Your task to perform on an android device: open app "Gmail" (install if not already installed) and enter user name: "undecidable@inbox.com" and password: "discouraging" Image 0: 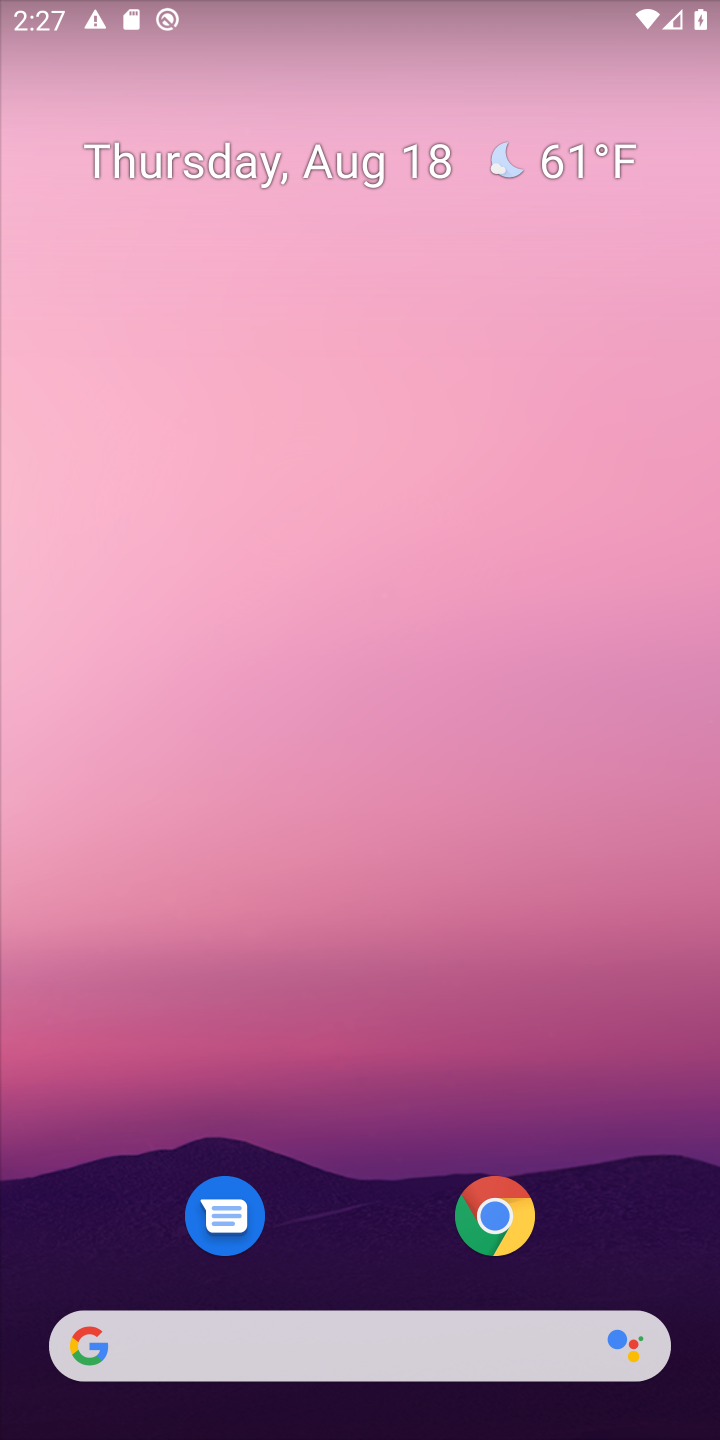
Step 0: drag from (615, 1237) to (557, 88)
Your task to perform on an android device: open app "Gmail" (install if not already installed) and enter user name: "undecidable@inbox.com" and password: "discouraging" Image 1: 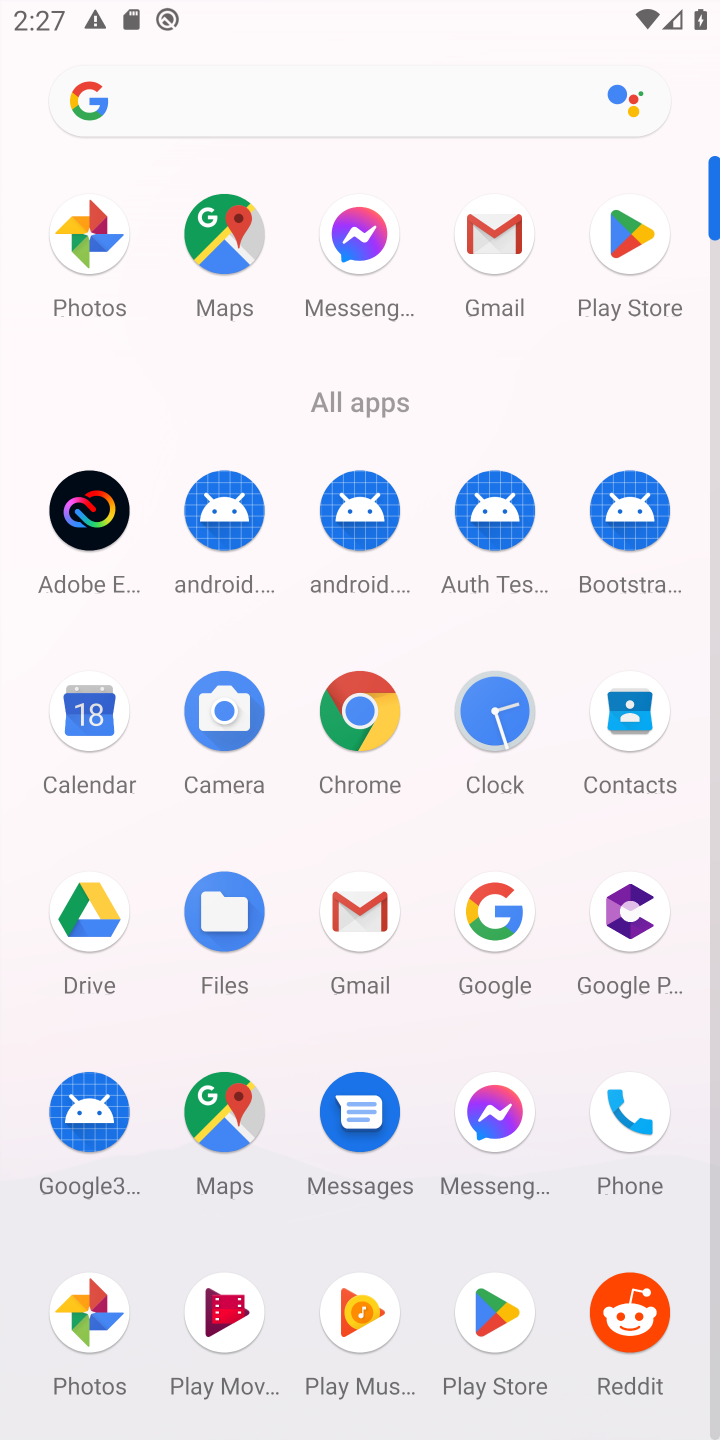
Step 1: click (365, 912)
Your task to perform on an android device: open app "Gmail" (install if not already installed) and enter user name: "undecidable@inbox.com" and password: "discouraging" Image 2: 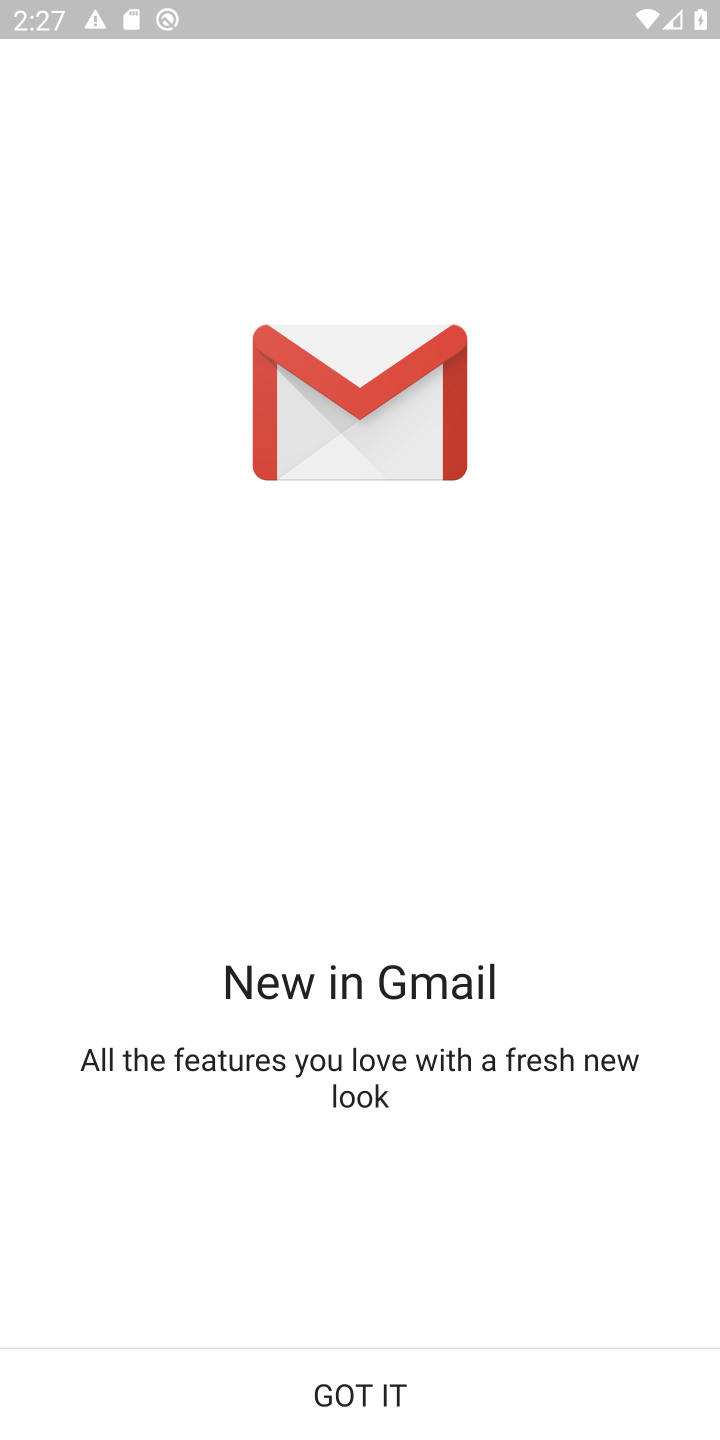
Step 2: click (368, 1400)
Your task to perform on an android device: open app "Gmail" (install if not already installed) and enter user name: "undecidable@inbox.com" and password: "discouraging" Image 3: 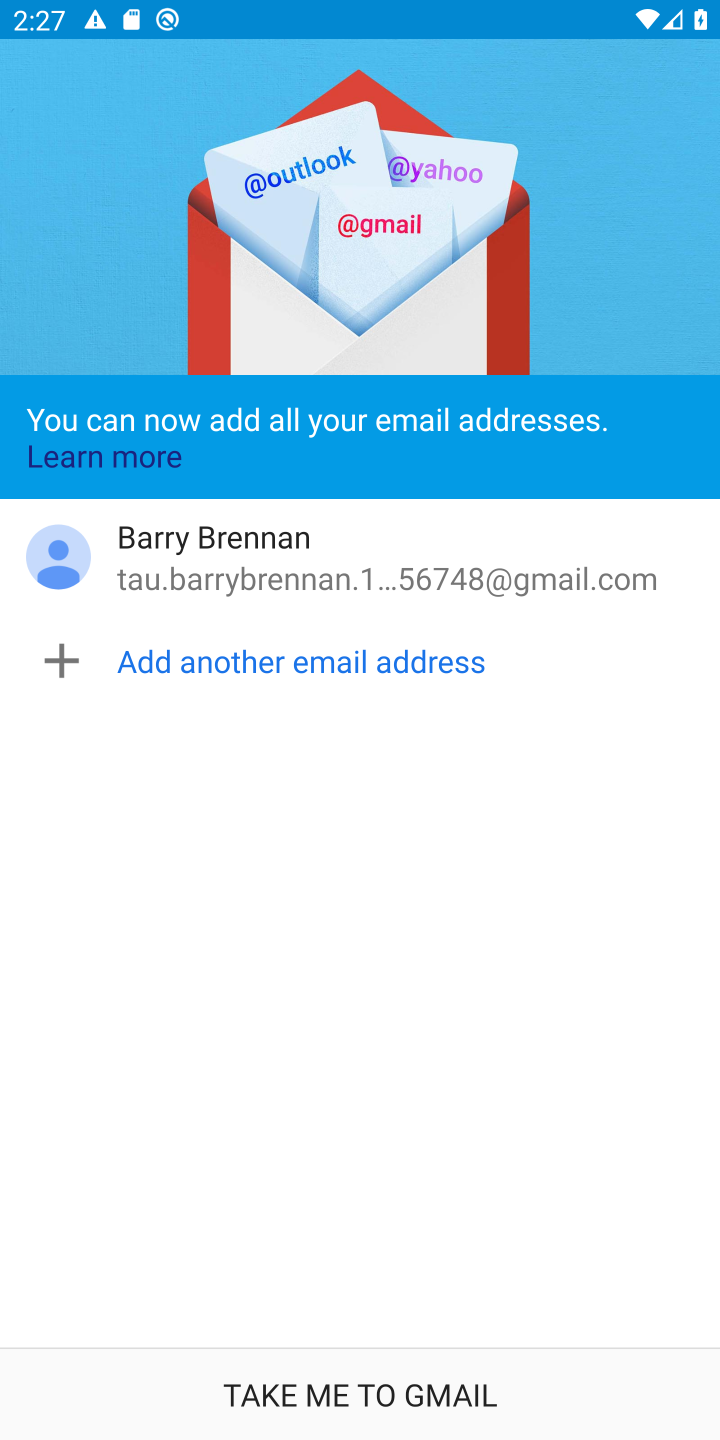
Step 3: click (369, 1380)
Your task to perform on an android device: open app "Gmail" (install if not already installed) and enter user name: "undecidable@inbox.com" and password: "discouraging" Image 4: 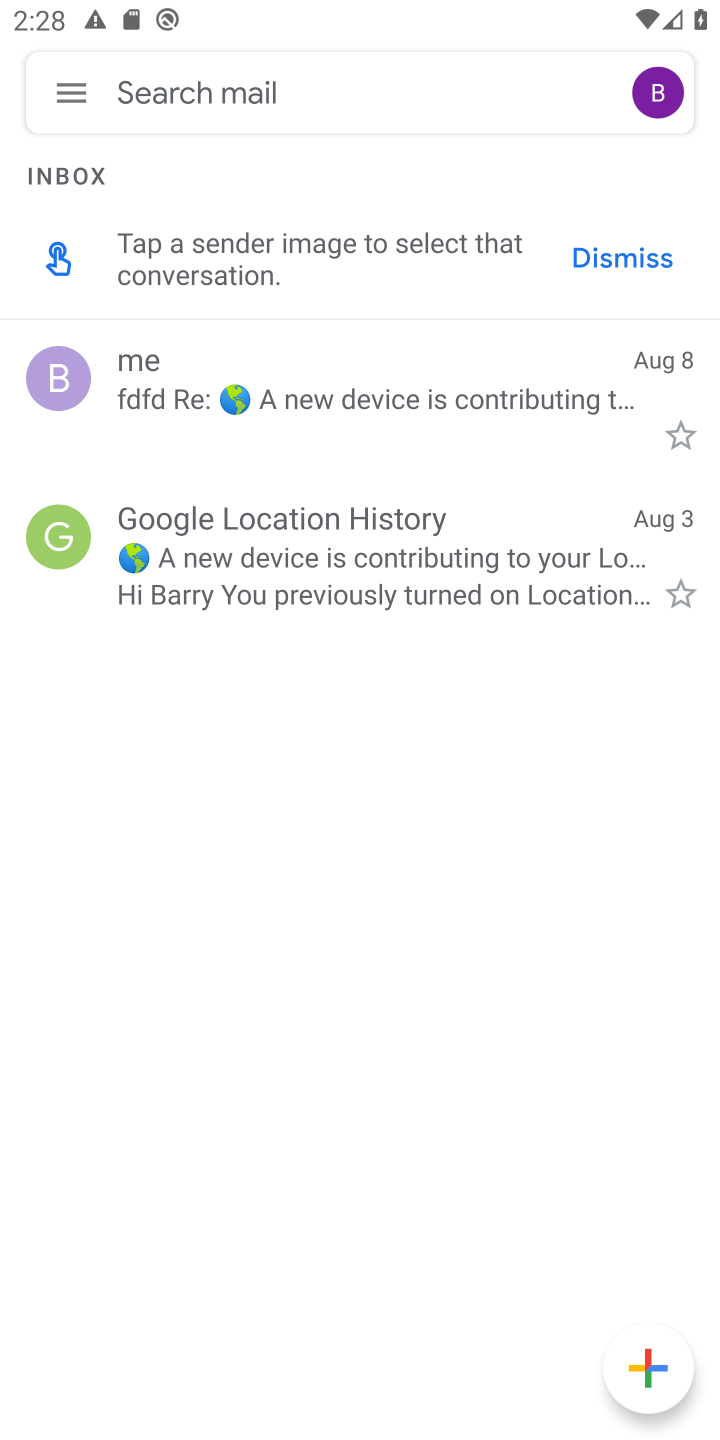
Step 4: click (662, 93)
Your task to perform on an android device: open app "Gmail" (install if not already installed) and enter user name: "undecidable@inbox.com" and password: "discouraging" Image 5: 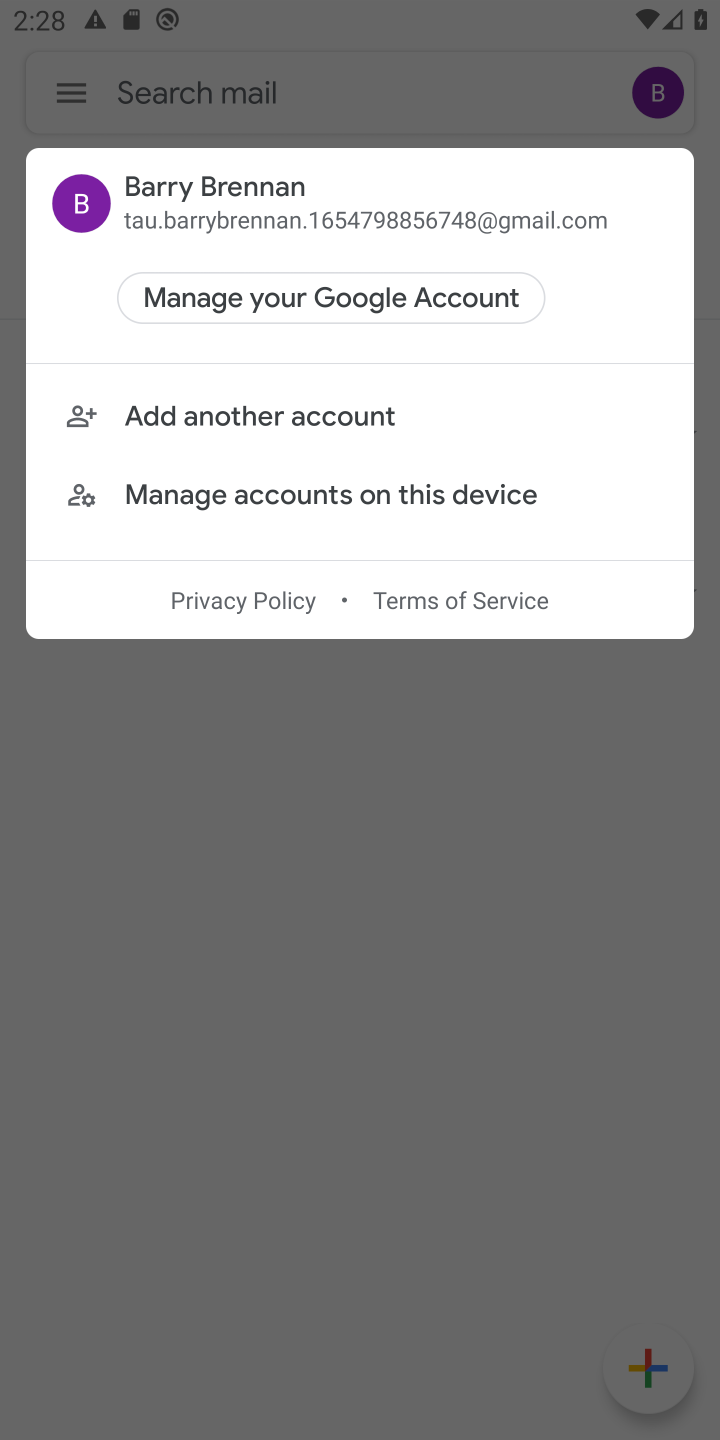
Step 5: click (182, 423)
Your task to perform on an android device: open app "Gmail" (install if not already installed) and enter user name: "undecidable@inbox.com" and password: "discouraging" Image 6: 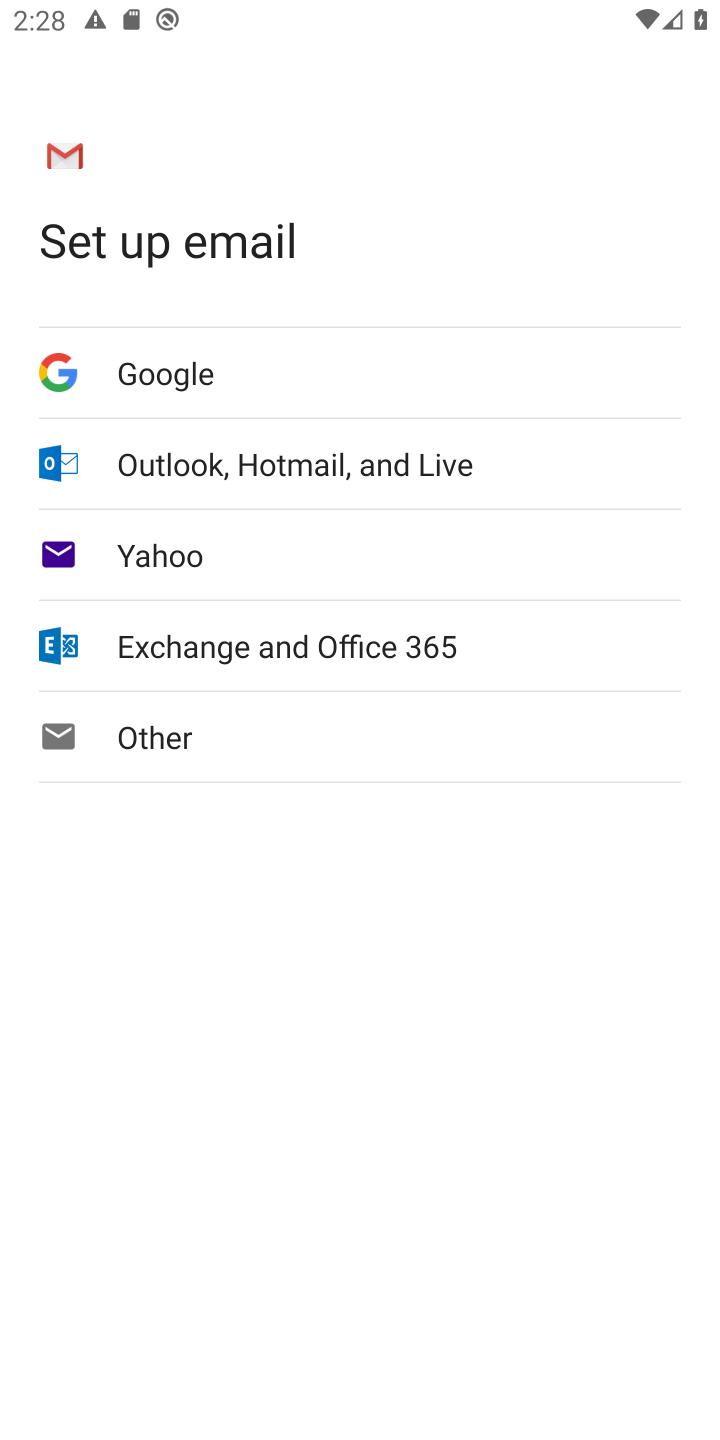
Step 6: click (151, 380)
Your task to perform on an android device: open app "Gmail" (install if not already installed) and enter user name: "undecidable@inbox.com" and password: "discouraging" Image 7: 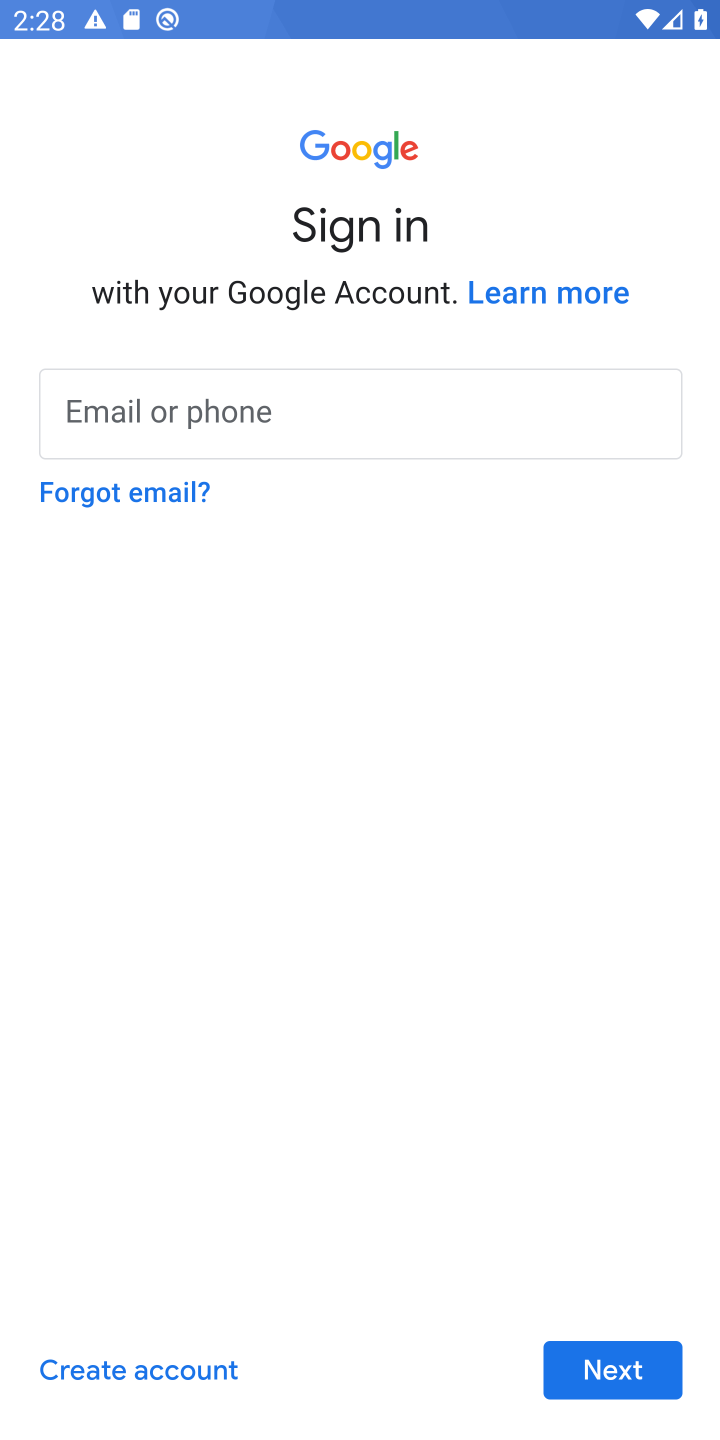
Step 7: click (221, 390)
Your task to perform on an android device: open app "Gmail" (install if not already installed) and enter user name: "undecidable@inbox.com" and password: "discouraging" Image 8: 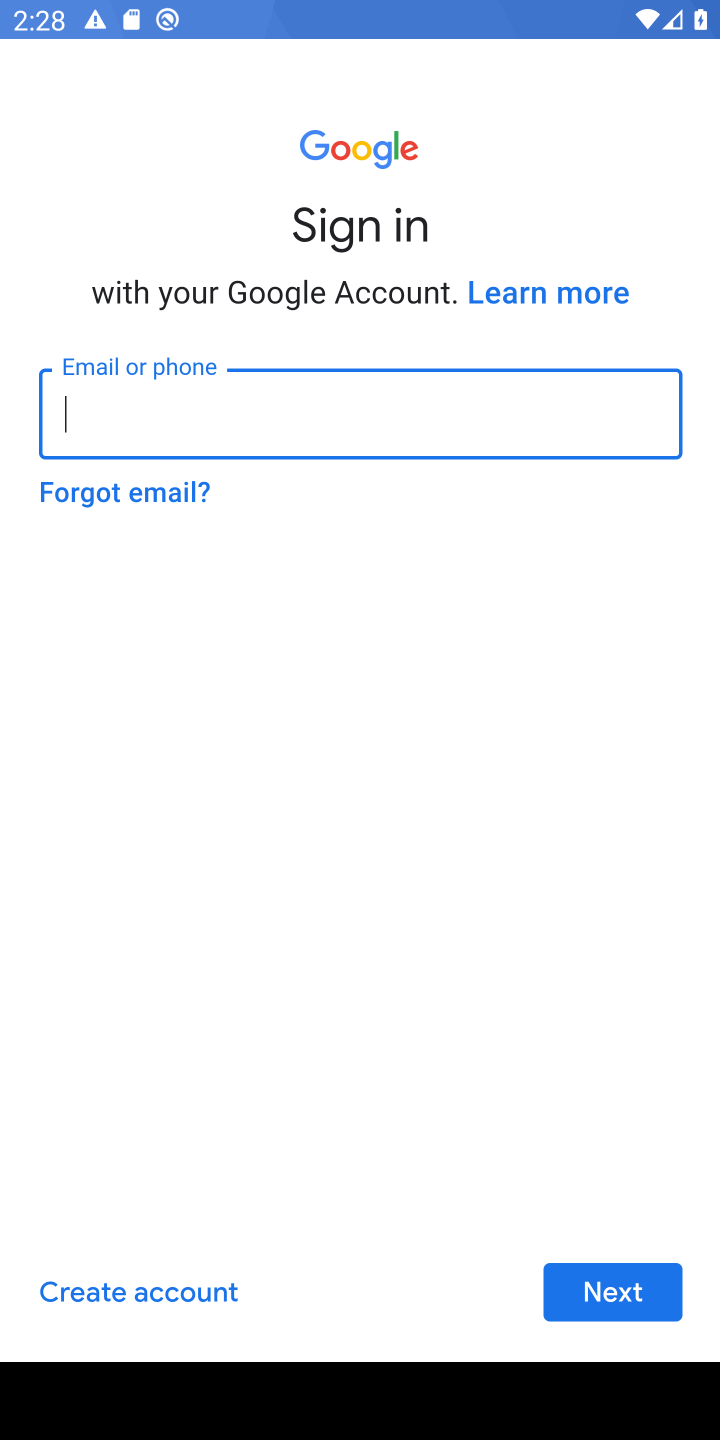
Step 8: type "undecidable@inbox.com"
Your task to perform on an android device: open app "Gmail" (install if not already installed) and enter user name: "undecidable@inbox.com" and password: "discouraging" Image 9: 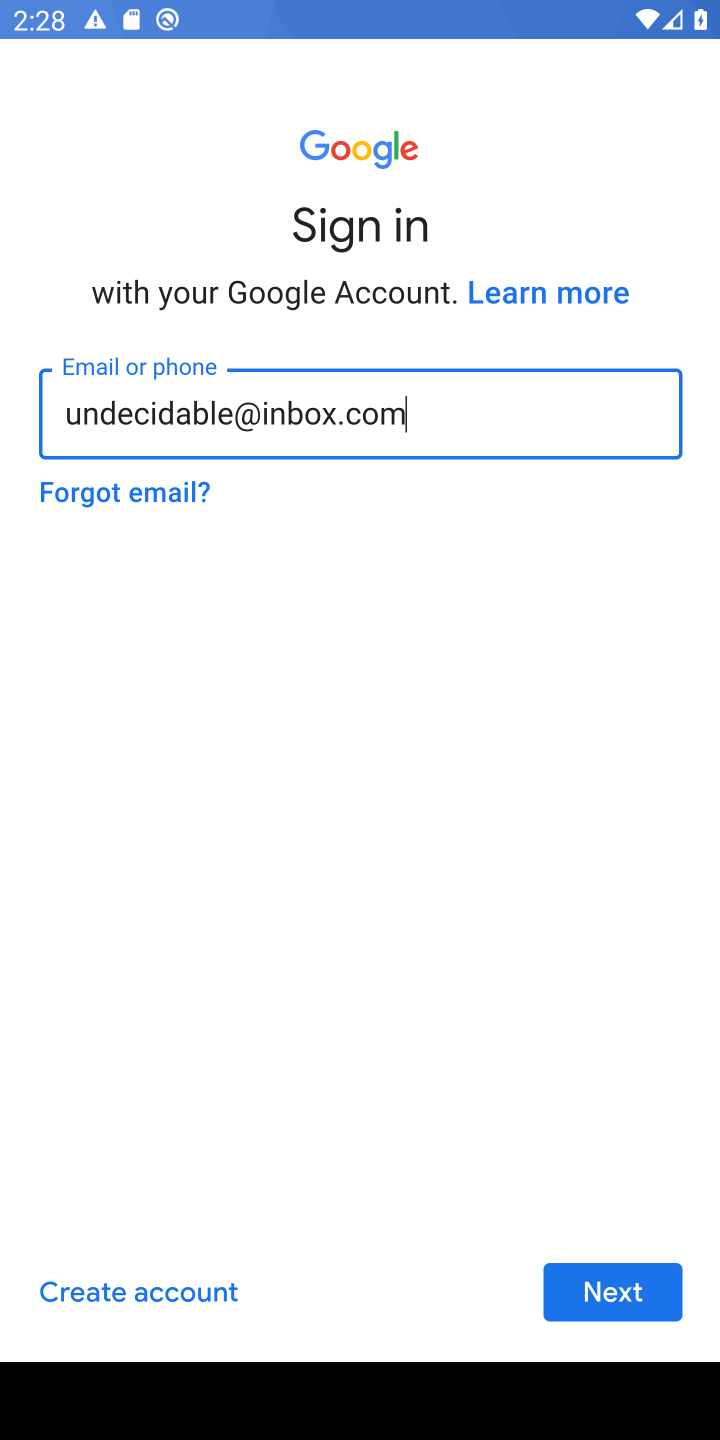
Step 9: click (596, 1278)
Your task to perform on an android device: open app "Gmail" (install if not already installed) and enter user name: "undecidable@inbox.com" and password: "discouraging" Image 10: 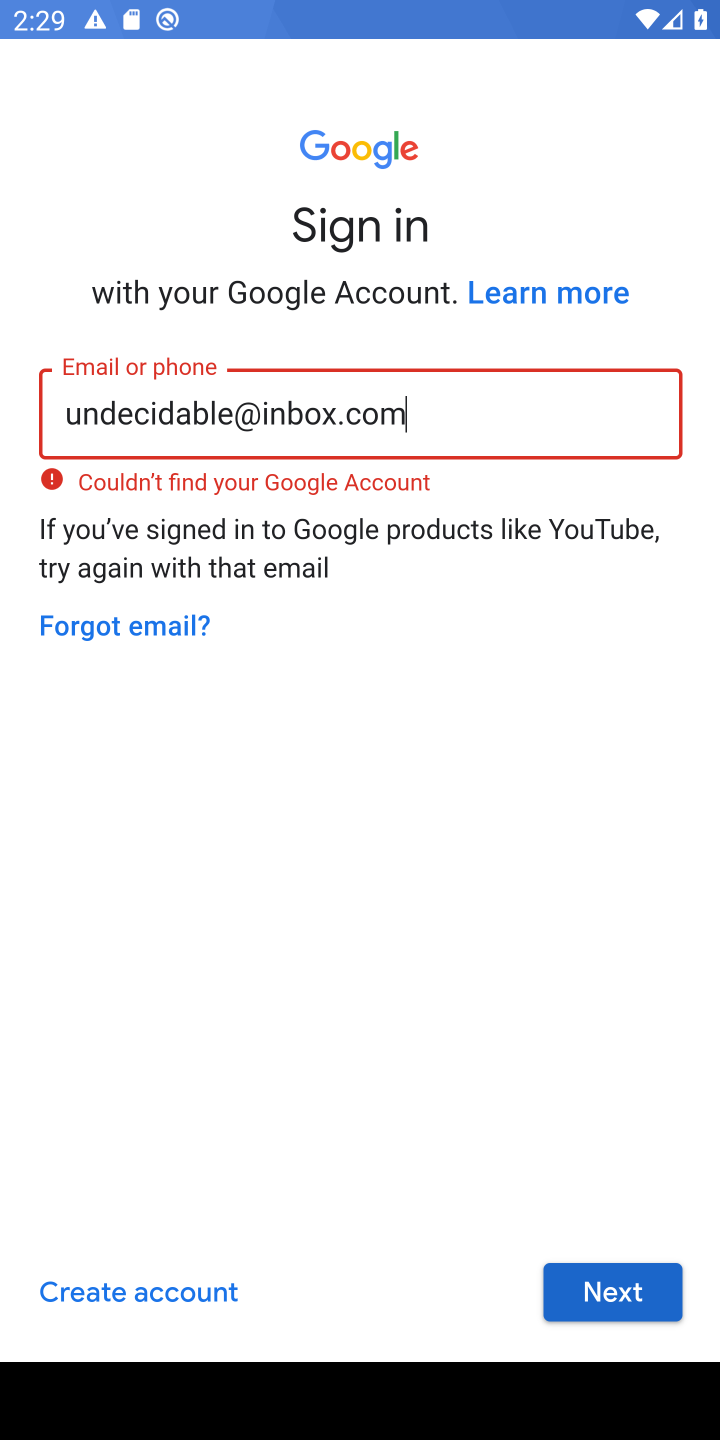
Step 10: task complete